Your task to perform on an android device: delete the emails in spam in the gmail app Image 0: 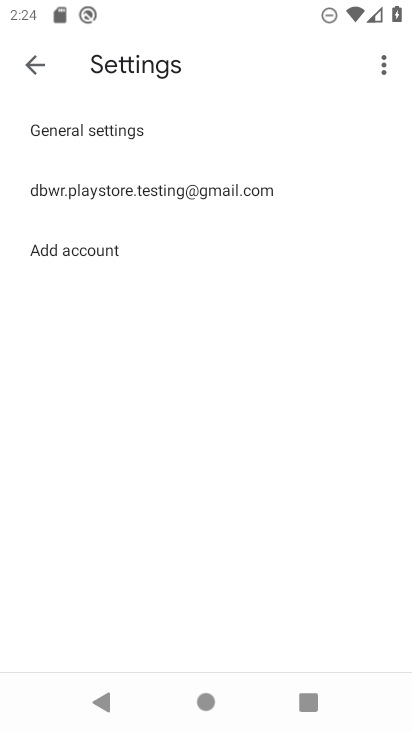
Step 0: press home button
Your task to perform on an android device: delete the emails in spam in the gmail app Image 1: 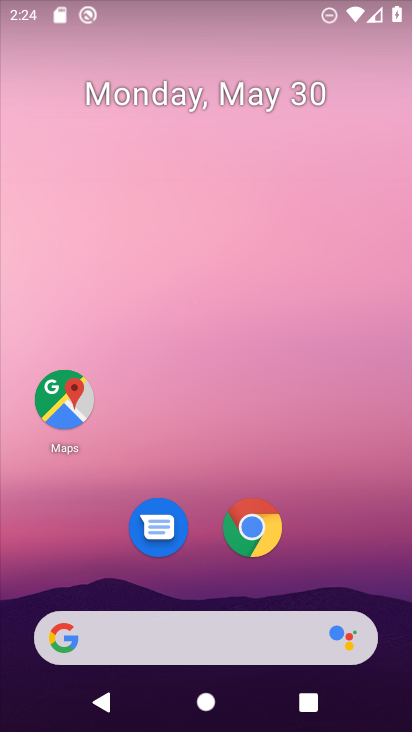
Step 1: drag from (264, 631) to (227, 4)
Your task to perform on an android device: delete the emails in spam in the gmail app Image 2: 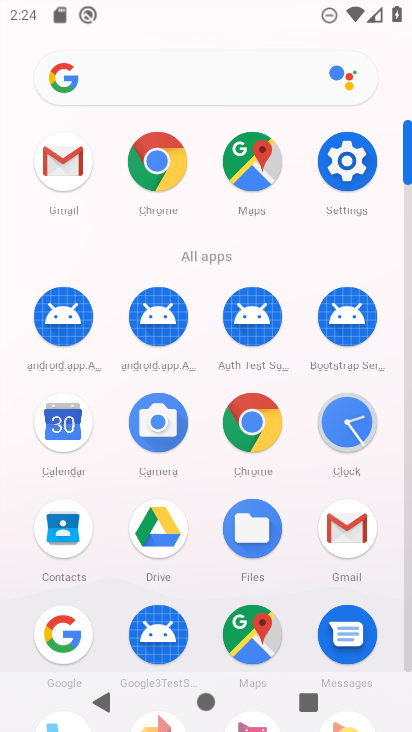
Step 2: click (337, 506)
Your task to perform on an android device: delete the emails in spam in the gmail app Image 3: 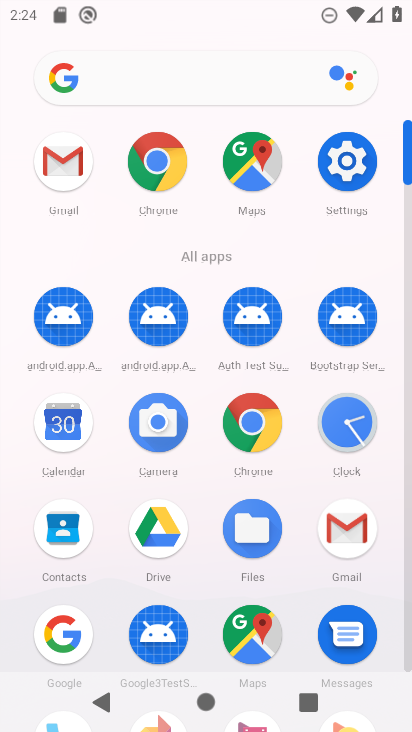
Step 3: click (340, 517)
Your task to perform on an android device: delete the emails in spam in the gmail app Image 4: 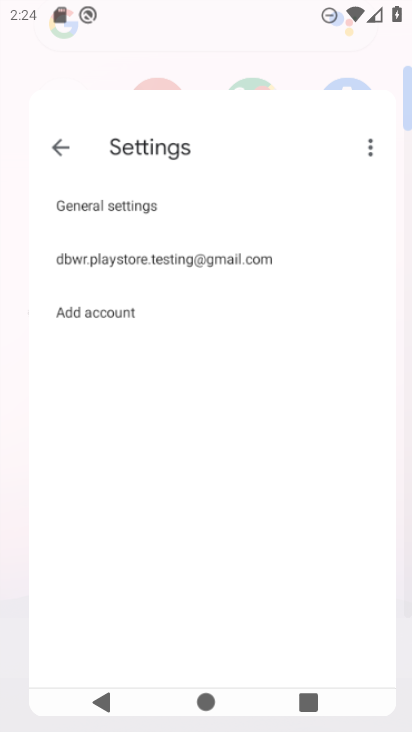
Step 4: click (340, 517)
Your task to perform on an android device: delete the emails in spam in the gmail app Image 5: 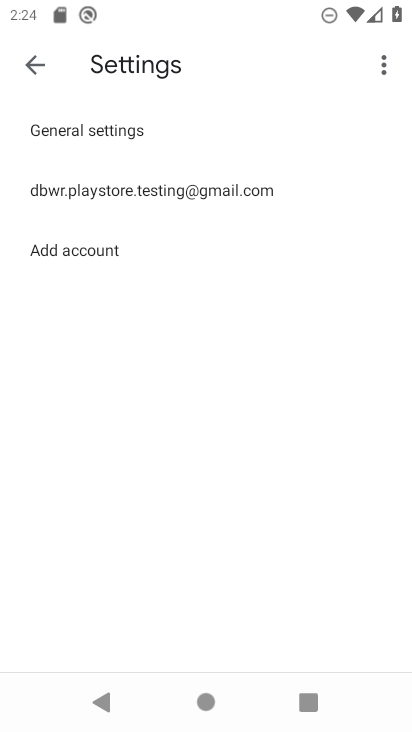
Step 5: click (86, 183)
Your task to perform on an android device: delete the emails in spam in the gmail app Image 6: 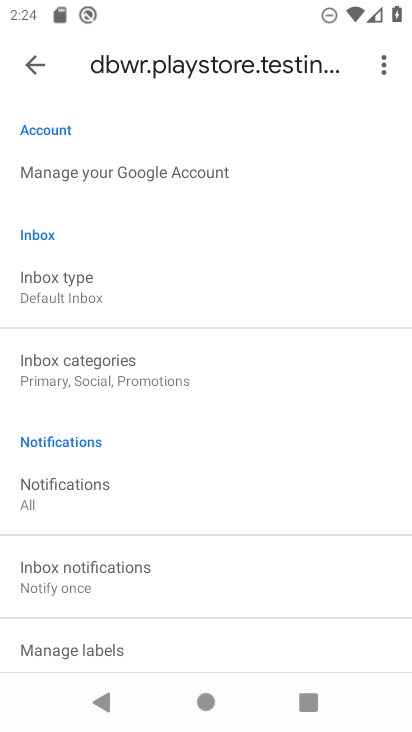
Step 6: click (29, 58)
Your task to perform on an android device: delete the emails in spam in the gmail app Image 7: 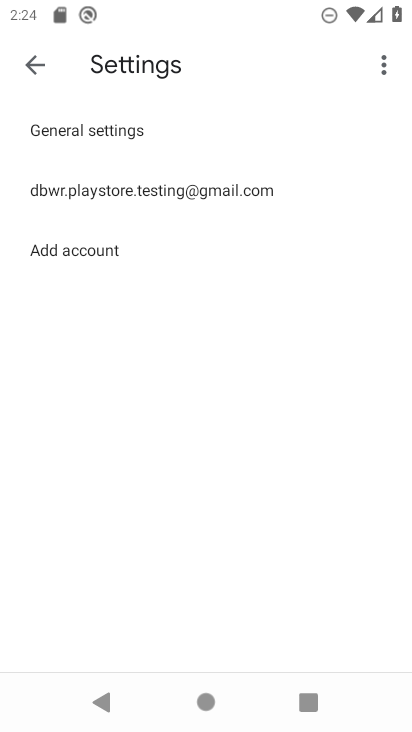
Step 7: click (28, 59)
Your task to perform on an android device: delete the emails in spam in the gmail app Image 8: 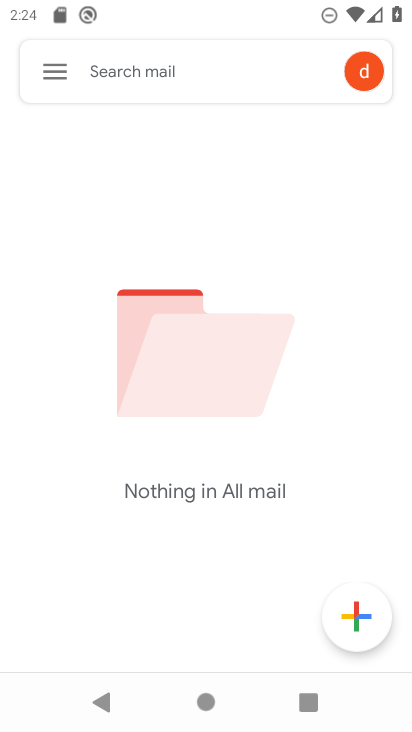
Step 8: click (48, 72)
Your task to perform on an android device: delete the emails in spam in the gmail app Image 9: 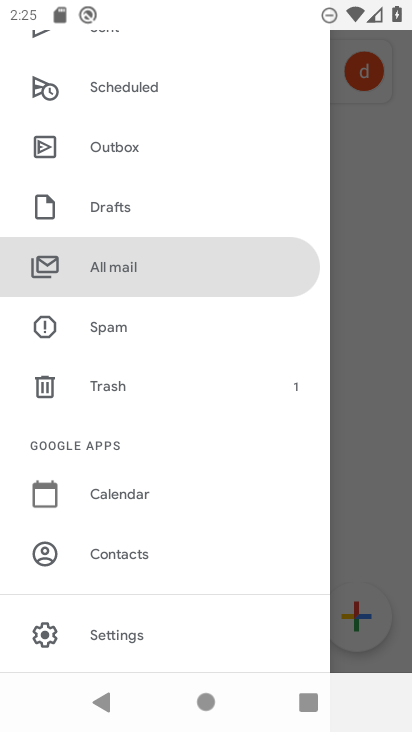
Step 9: click (118, 324)
Your task to perform on an android device: delete the emails in spam in the gmail app Image 10: 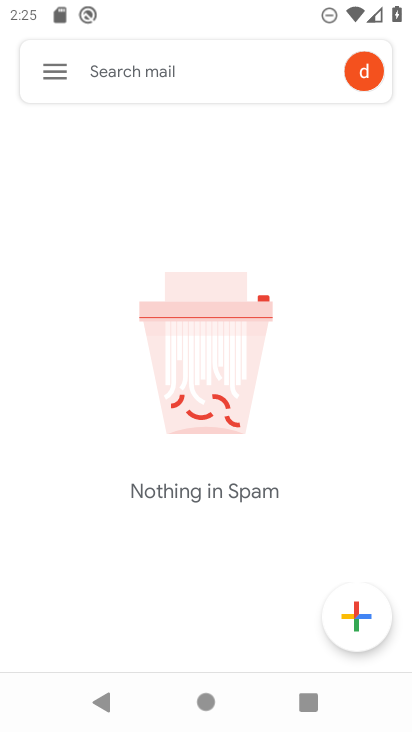
Step 10: task complete